Your task to perform on an android device: Open network settings Image 0: 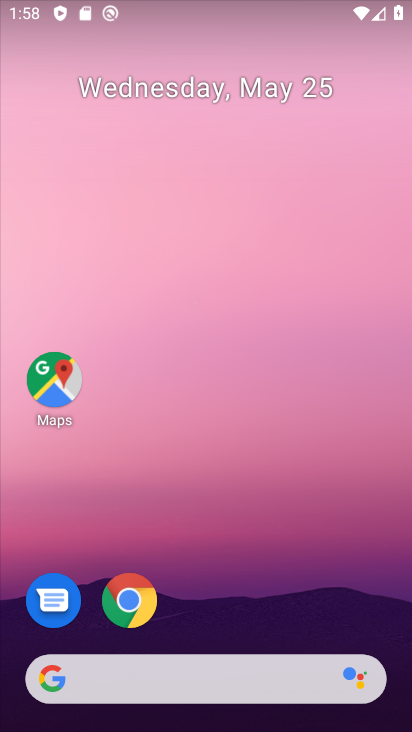
Step 0: drag from (262, 582) to (291, 199)
Your task to perform on an android device: Open network settings Image 1: 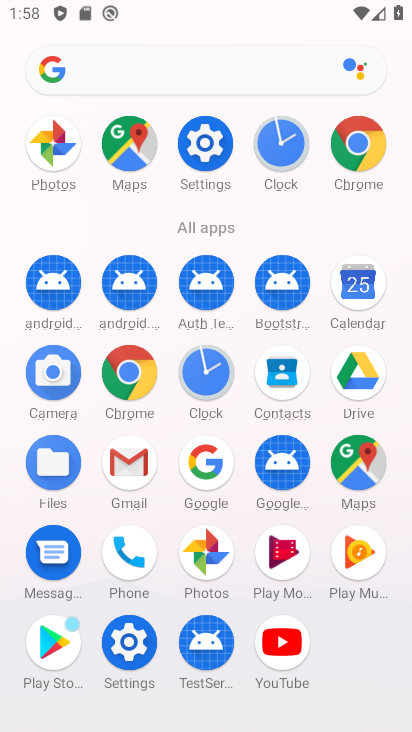
Step 1: click (212, 133)
Your task to perform on an android device: Open network settings Image 2: 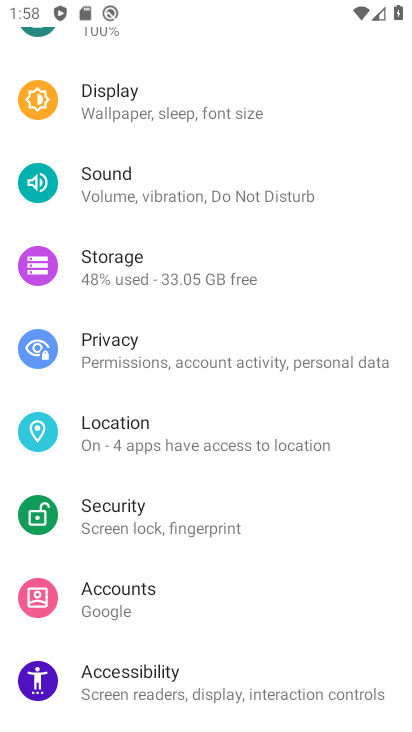
Step 2: drag from (186, 560) to (246, 129)
Your task to perform on an android device: Open network settings Image 3: 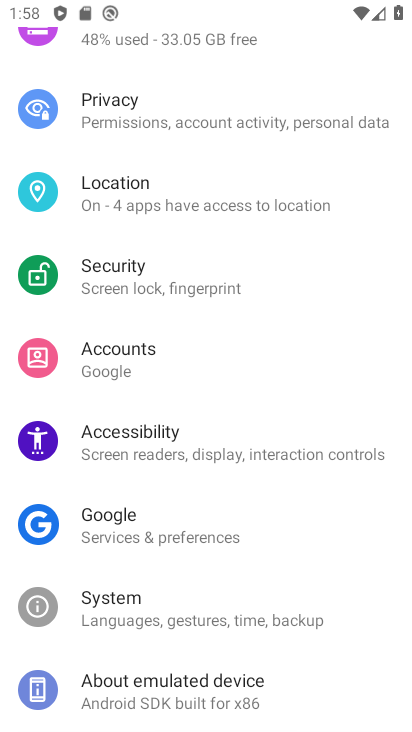
Step 3: drag from (261, 165) to (237, 631)
Your task to perform on an android device: Open network settings Image 4: 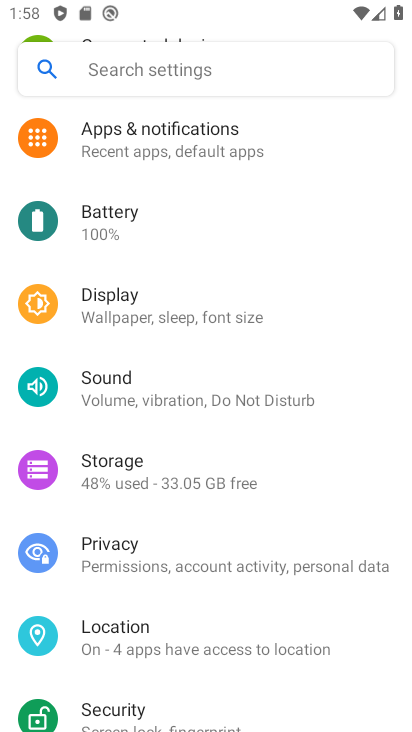
Step 4: drag from (223, 216) to (223, 586)
Your task to perform on an android device: Open network settings Image 5: 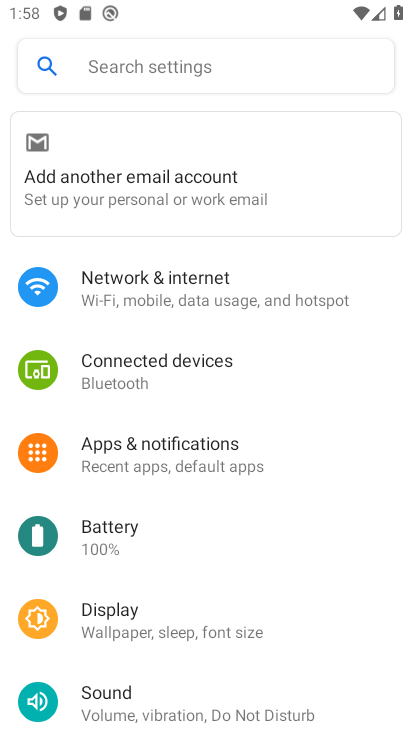
Step 5: click (108, 297)
Your task to perform on an android device: Open network settings Image 6: 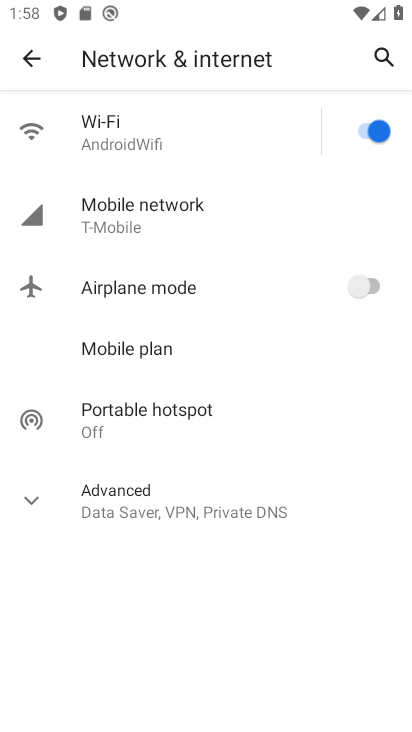
Step 6: task complete